Your task to perform on an android device: Is it going to rain this weekend? Image 0: 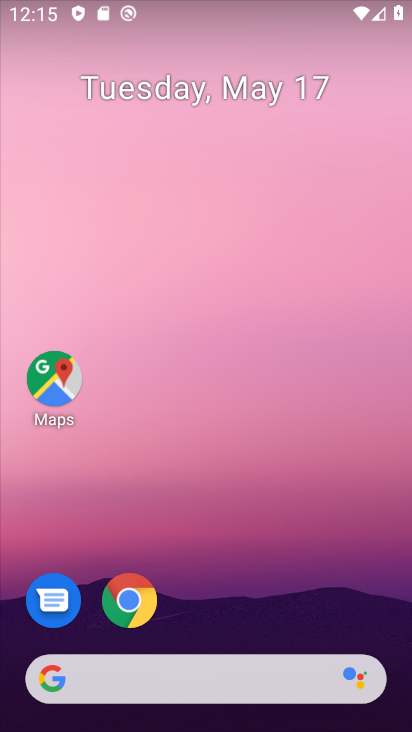
Step 0: drag from (189, 613) to (99, 69)
Your task to perform on an android device: Is it going to rain this weekend? Image 1: 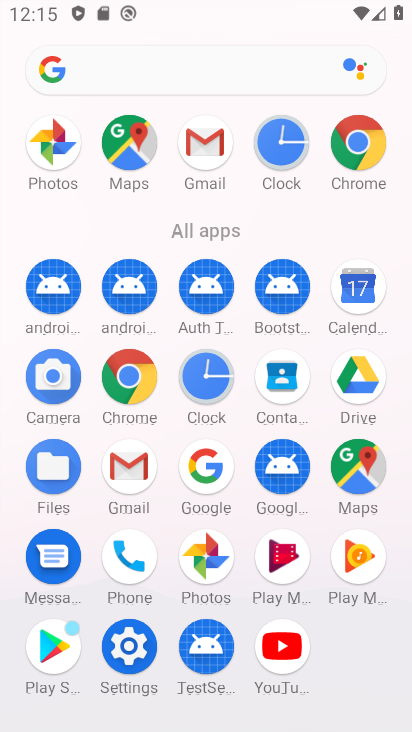
Step 1: click (196, 478)
Your task to perform on an android device: Is it going to rain this weekend? Image 2: 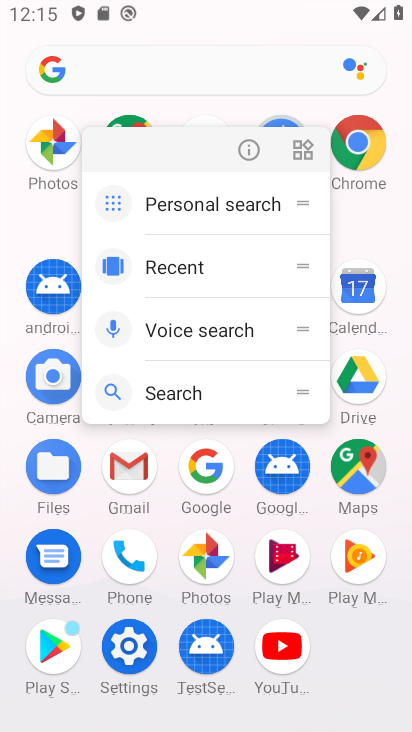
Step 2: click (200, 467)
Your task to perform on an android device: Is it going to rain this weekend? Image 3: 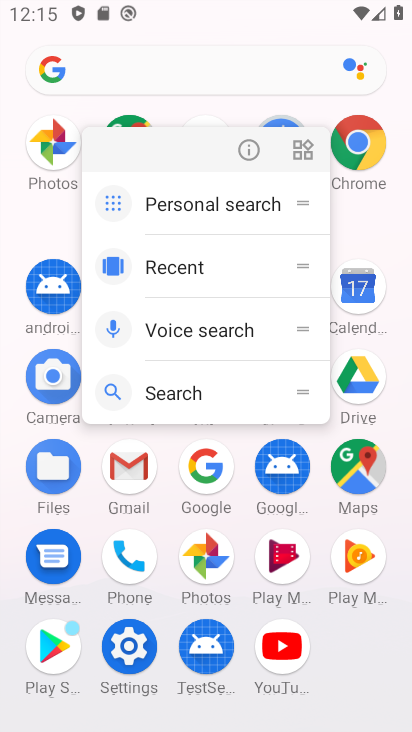
Step 3: click (214, 477)
Your task to perform on an android device: Is it going to rain this weekend? Image 4: 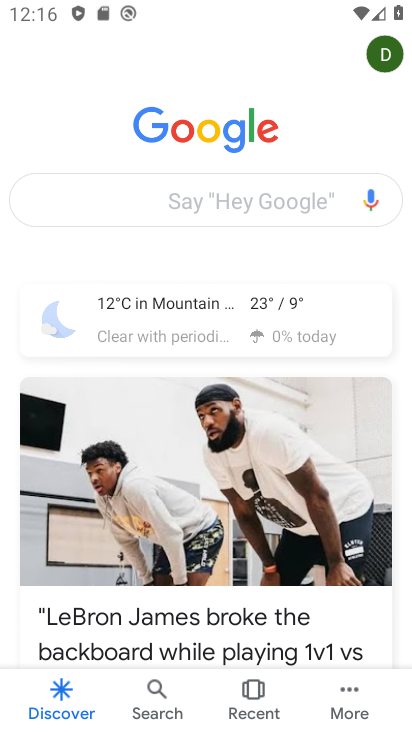
Step 4: click (203, 192)
Your task to perform on an android device: Is it going to rain this weekend? Image 5: 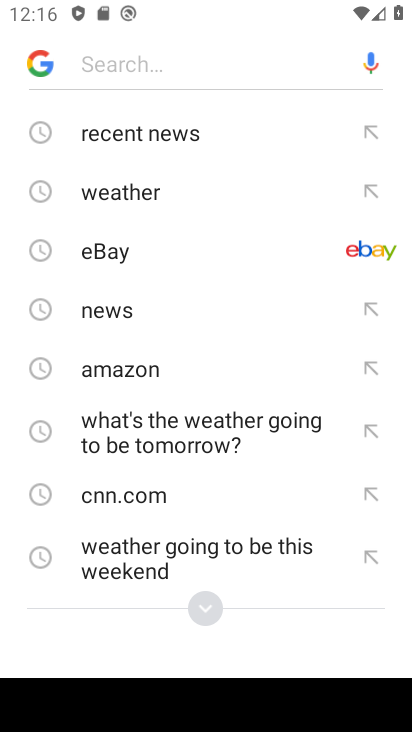
Step 5: click (126, 202)
Your task to perform on an android device: Is it going to rain this weekend? Image 6: 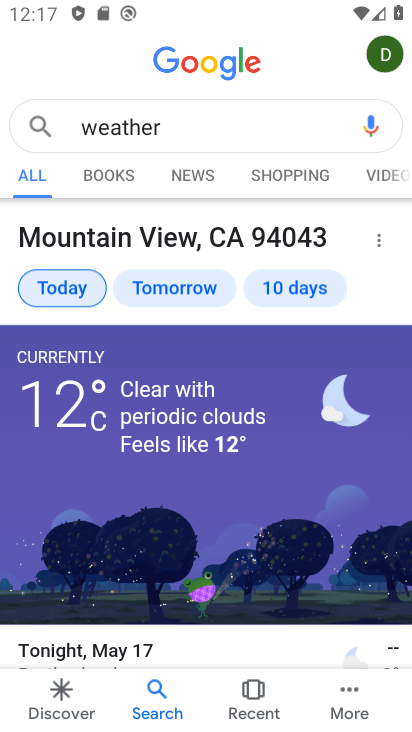
Step 6: click (158, 296)
Your task to perform on an android device: Is it going to rain this weekend? Image 7: 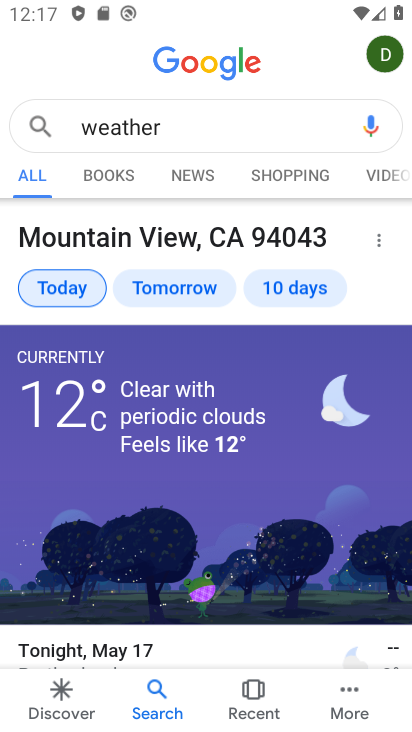
Step 7: click (174, 292)
Your task to perform on an android device: Is it going to rain this weekend? Image 8: 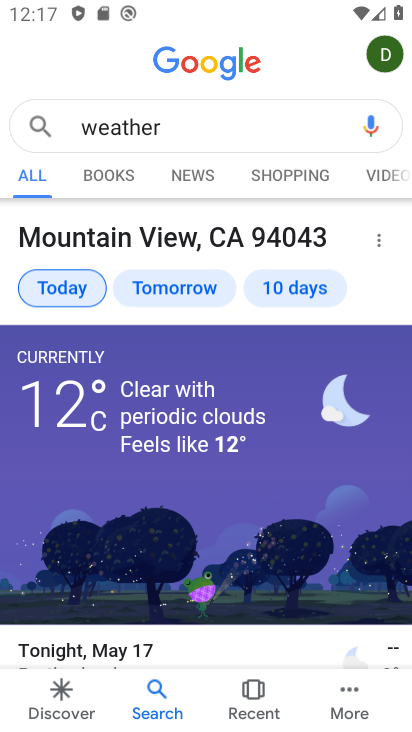
Step 8: click (161, 297)
Your task to perform on an android device: Is it going to rain this weekend? Image 9: 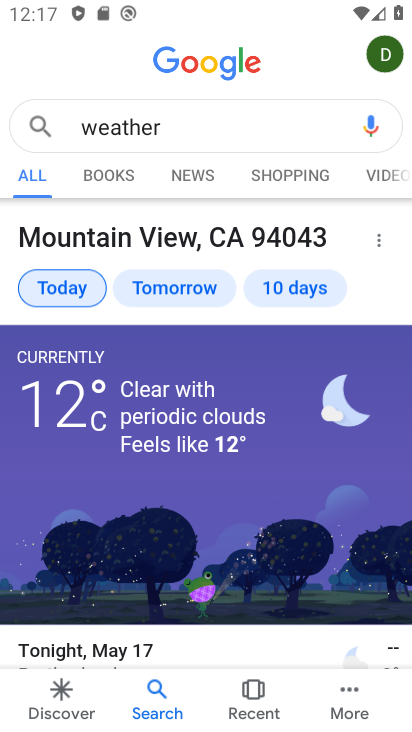
Step 9: click (175, 289)
Your task to perform on an android device: Is it going to rain this weekend? Image 10: 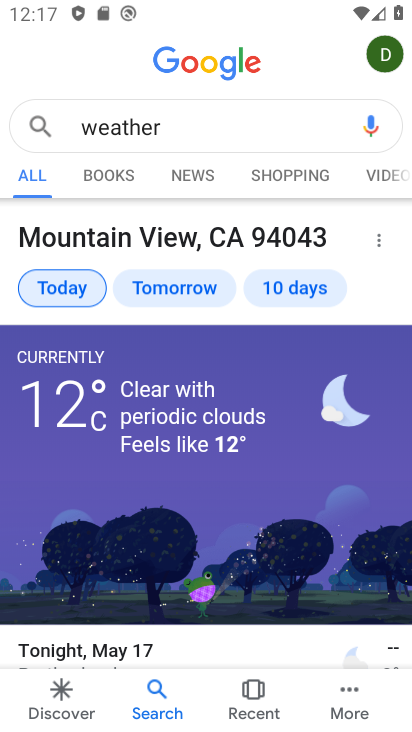
Step 10: click (175, 289)
Your task to perform on an android device: Is it going to rain this weekend? Image 11: 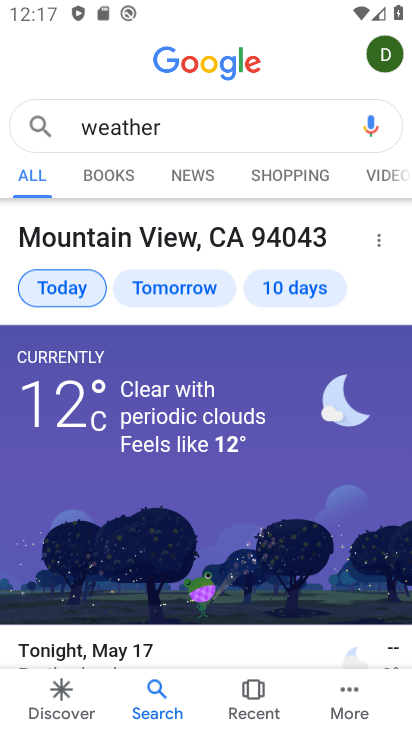
Step 11: task complete